Your task to perform on an android device: set an alarm Image 0: 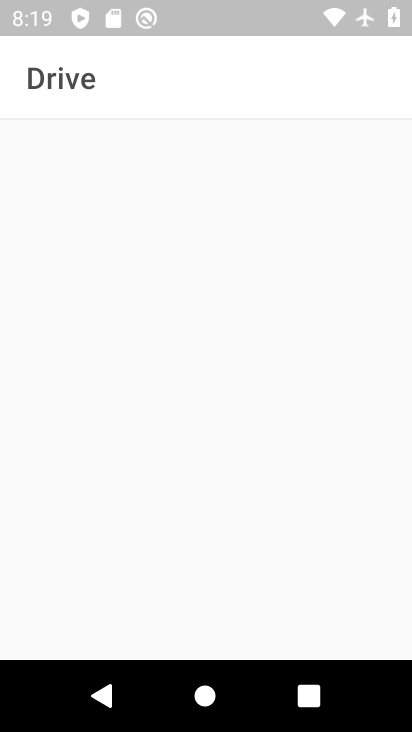
Step 0: press home button
Your task to perform on an android device: set an alarm Image 1: 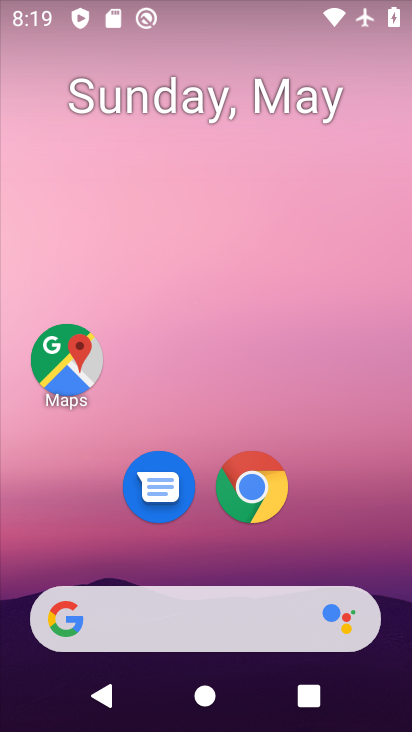
Step 1: drag from (129, 582) to (225, 117)
Your task to perform on an android device: set an alarm Image 2: 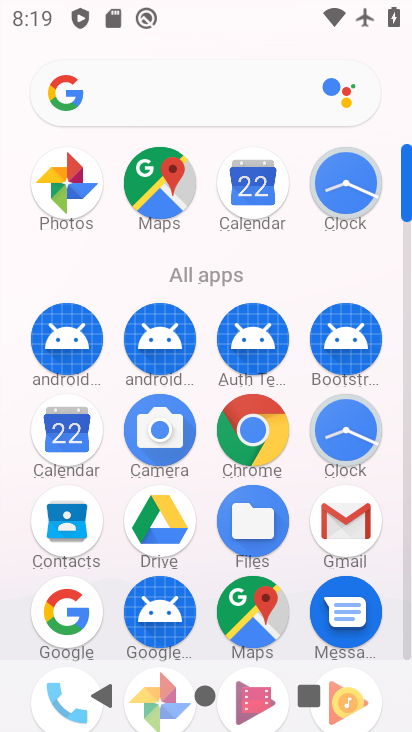
Step 2: click (346, 423)
Your task to perform on an android device: set an alarm Image 3: 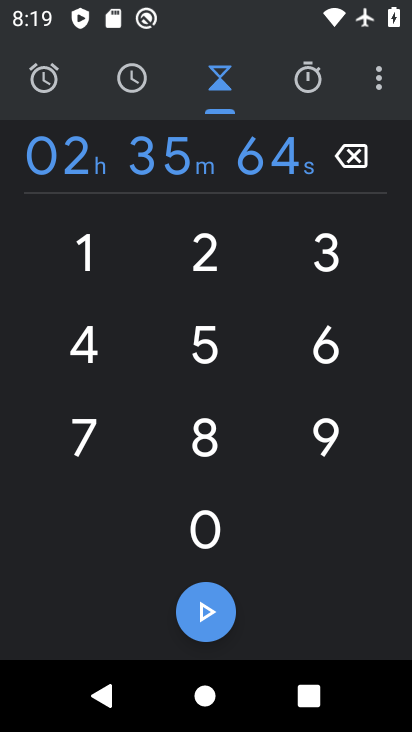
Step 3: click (53, 69)
Your task to perform on an android device: set an alarm Image 4: 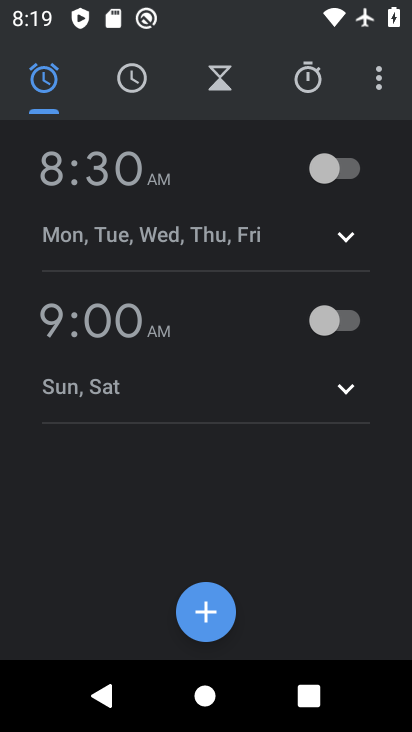
Step 4: click (351, 155)
Your task to perform on an android device: set an alarm Image 5: 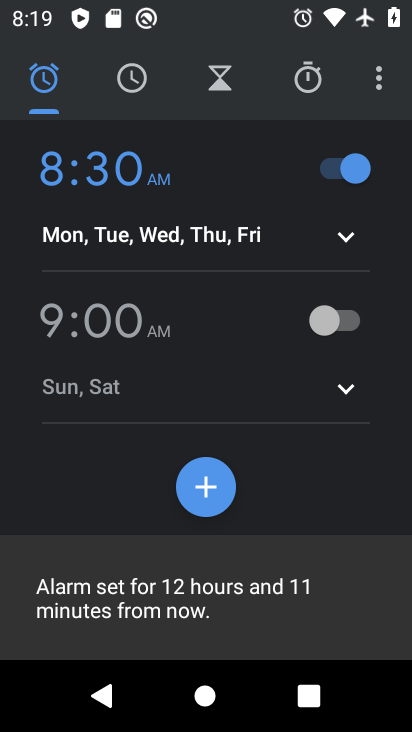
Step 5: task complete